Your task to perform on an android device: Open settings on Google Maps Image 0: 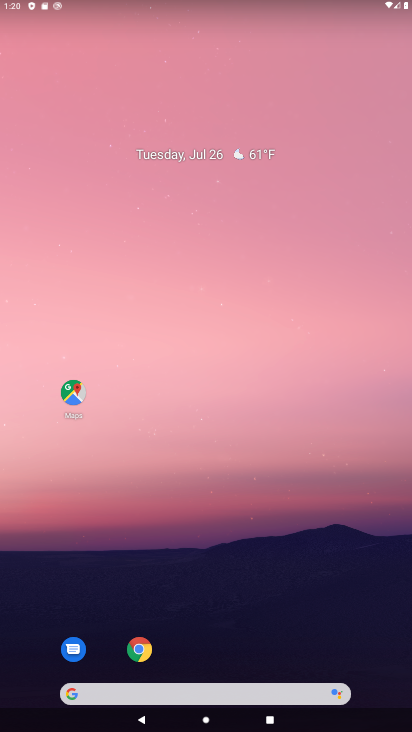
Step 0: click (84, 390)
Your task to perform on an android device: Open settings on Google Maps Image 1: 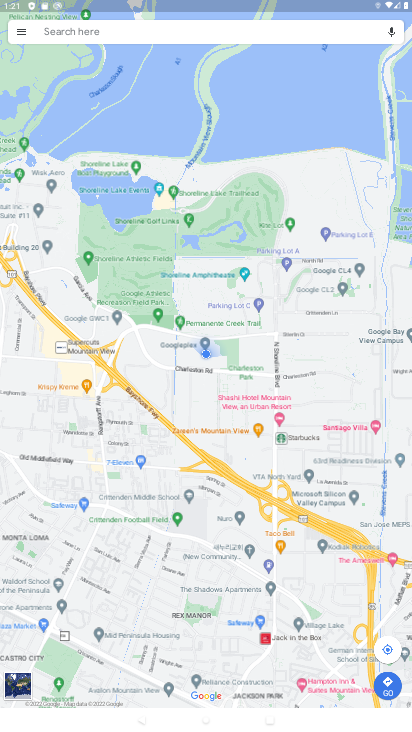
Step 1: click (19, 32)
Your task to perform on an android device: Open settings on Google Maps Image 2: 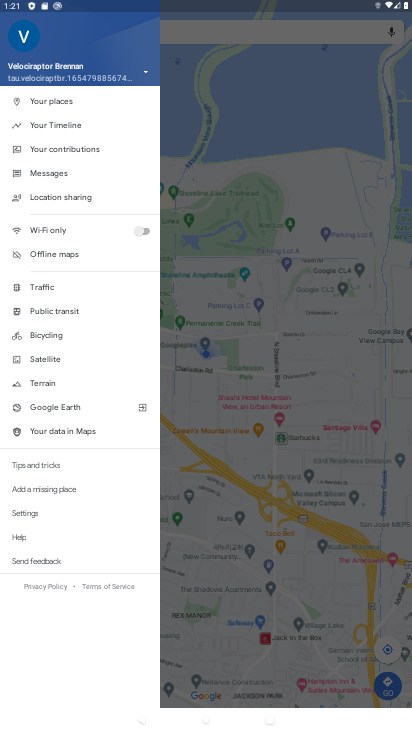
Step 2: click (41, 508)
Your task to perform on an android device: Open settings on Google Maps Image 3: 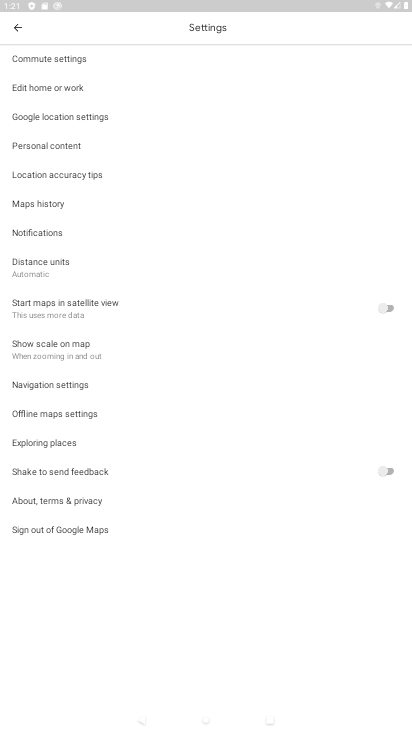
Step 3: task complete